Your task to perform on an android device: turn on priority inbox in the gmail app Image 0: 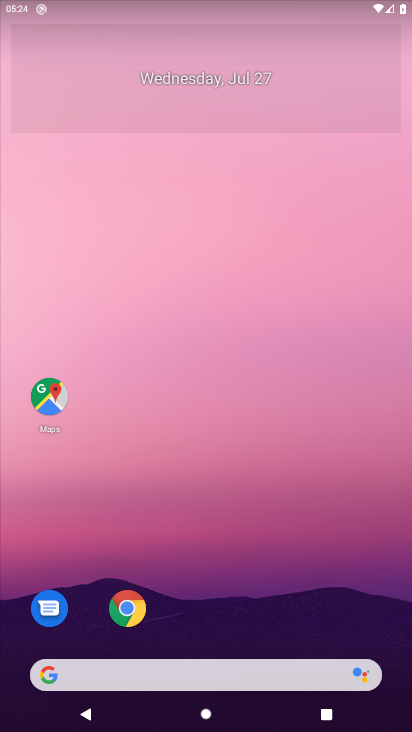
Step 0: press home button
Your task to perform on an android device: turn on priority inbox in the gmail app Image 1: 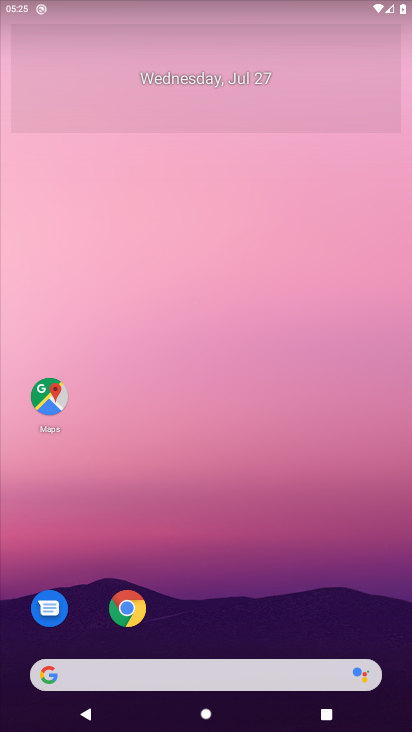
Step 1: drag from (242, 629) to (141, 157)
Your task to perform on an android device: turn on priority inbox in the gmail app Image 2: 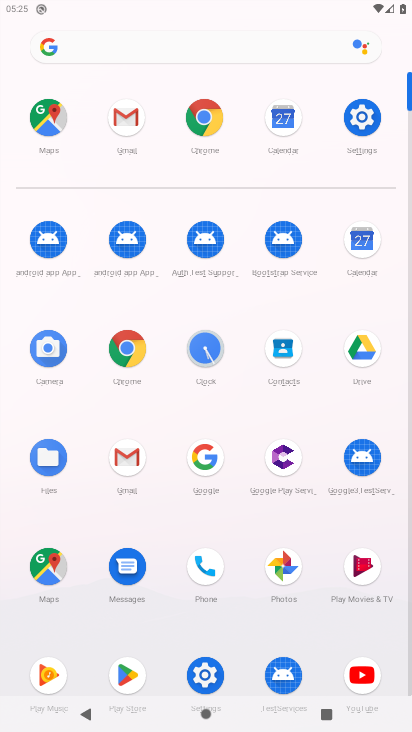
Step 2: click (116, 136)
Your task to perform on an android device: turn on priority inbox in the gmail app Image 3: 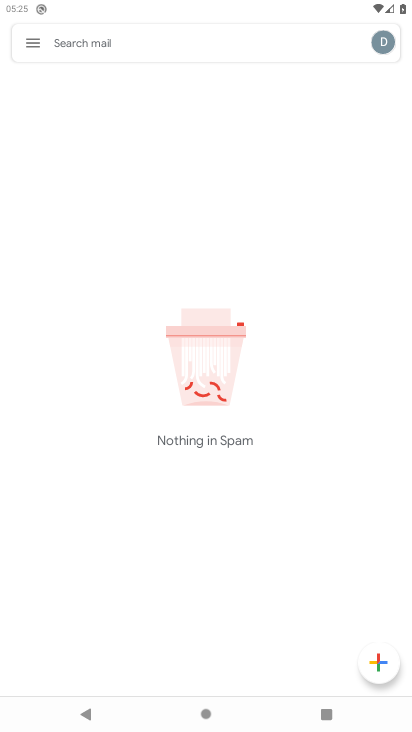
Step 3: click (32, 41)
Your task to perform on an android device: turn on priority inbox in the gmail app Image 4: 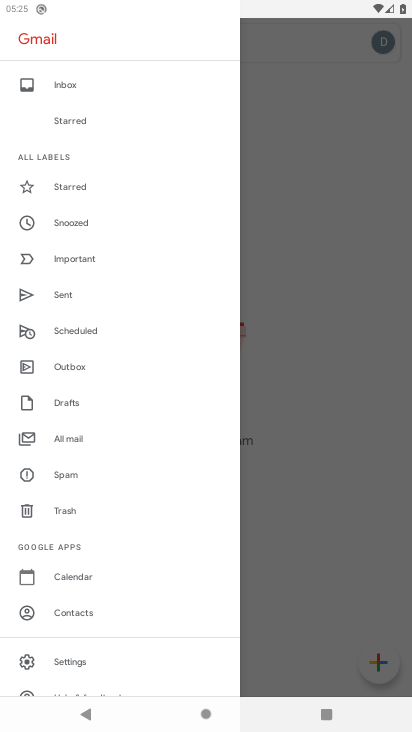
Step 4: click (58, 661)
Your task to perform on an android device: turn on priority inbox in the gmail app Image 5: 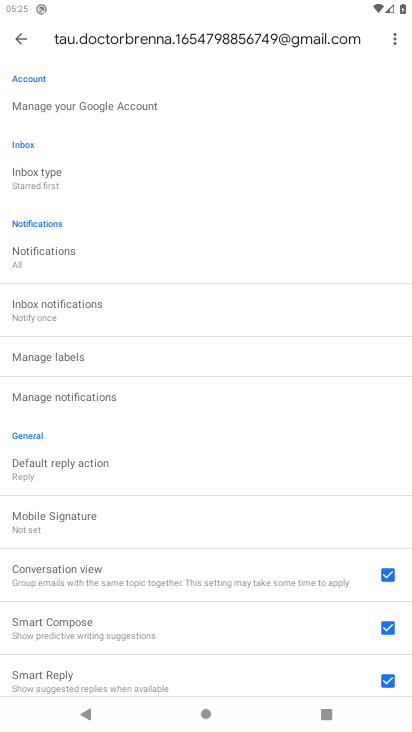
Step 5: click (44, 180)
Your task to perform on an android device: turn on priority inbox in the gmail app Image 6: 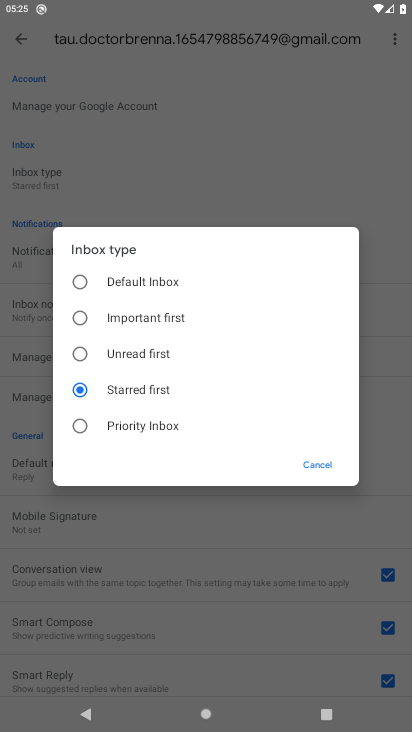
Step 6: click (75, 425)
Your task to perform on an android device: turn on priority inbox in the gmail app Image 7: 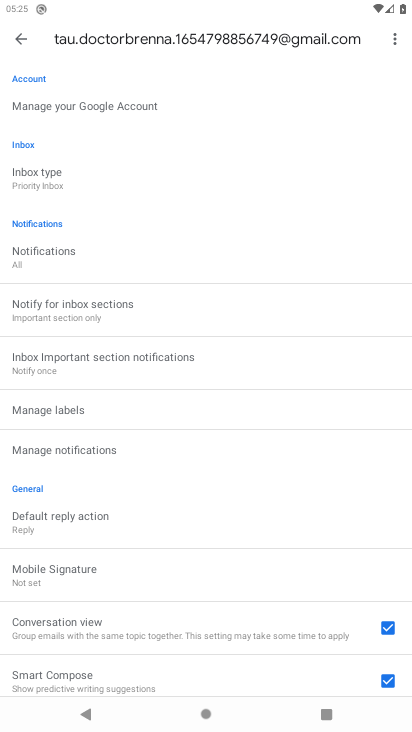
Step 7: task complete